Your task to perform on an android device: turn on showing notifications on the lock screen Image 0: 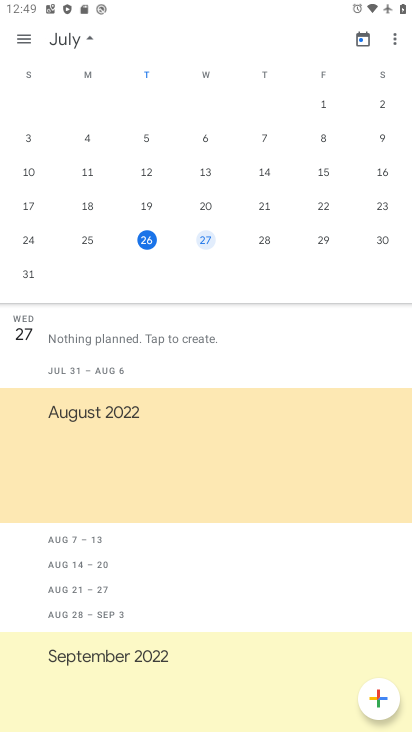
Step 0: press home button
Your task to perform on an android device: turn on showing notifications on the lock screen Image 1: 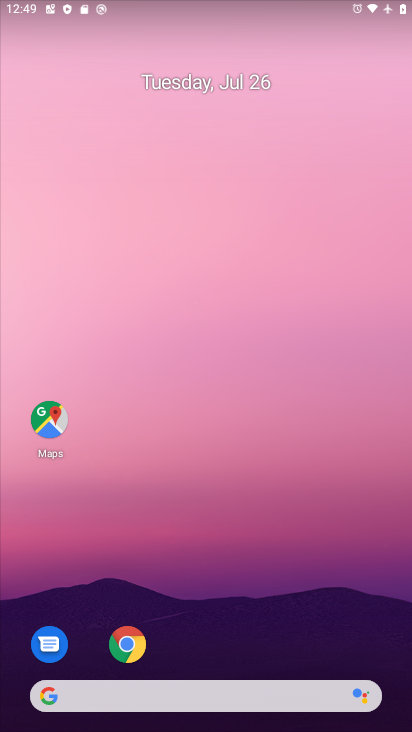
Step 1: drag from (244, 705) to (221, 180)
Your task to perform on an android device: turn on showing notifications on the lock screen Image 2: 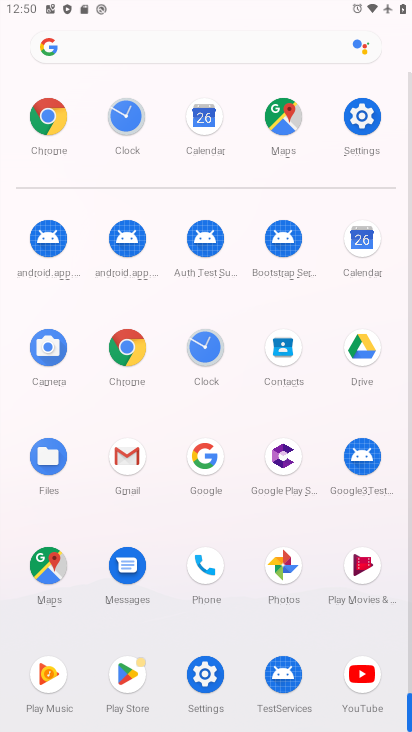
Step 2: click (369, 137)
Your task to perform on an android device: turn on showing notifications on the lock screen Image 3: 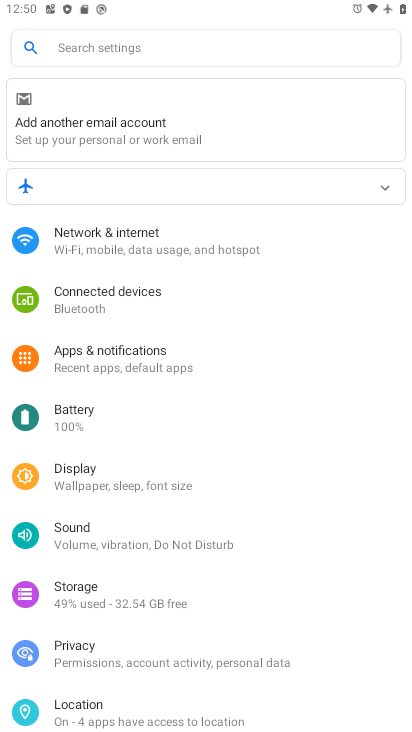
Step 3: click (163, 366)
Your task to perform on an android device: turn on showing notifications on the lock screen Image 4: 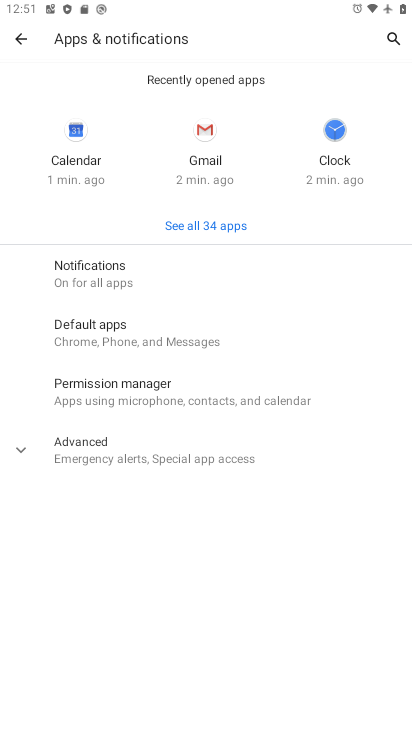
Step 4: click (127, 296)
Your task to perform on an android device: turn on showing notifications on the lock screen Image 5: 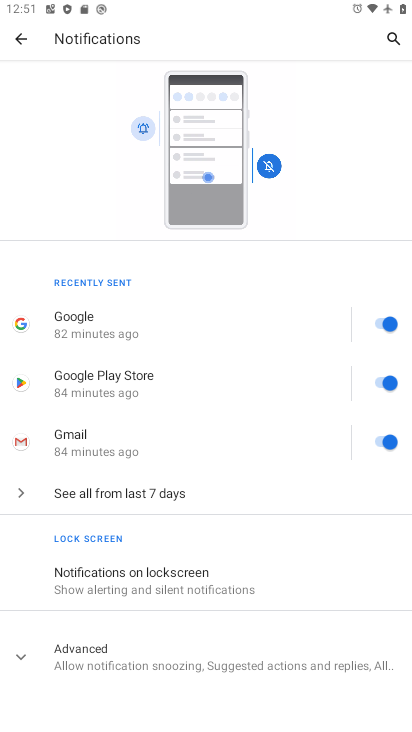
Step 5: click (167, 581)
Your task to perform on an android device: turn on showing notifications on the lock screen Image 6: 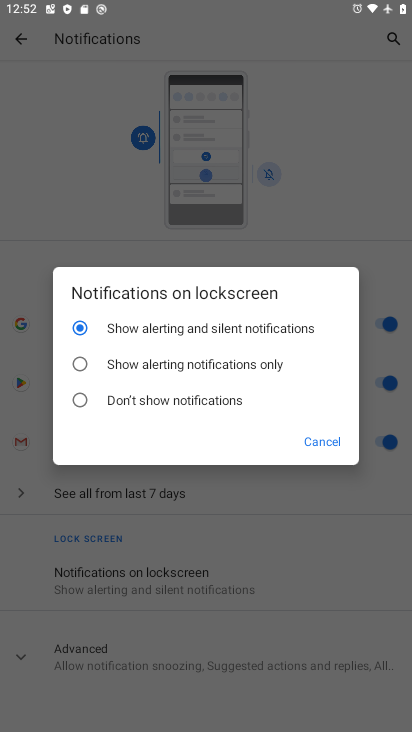
Step 6: task complete